Your task to perform on an android device: Play the new Drake video on YouTube Image 0: 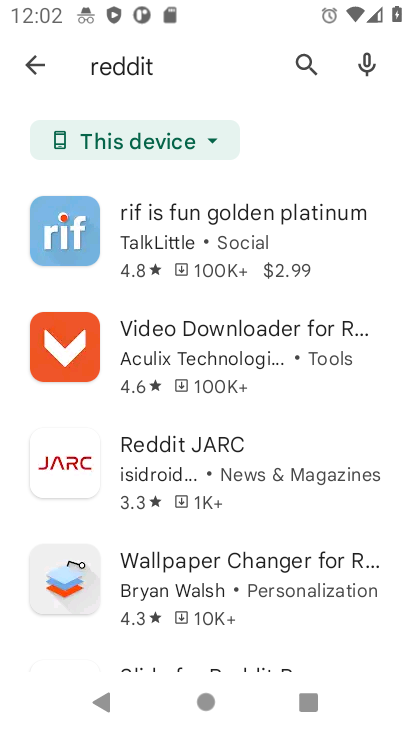
Step 0: press home button
Your task to perform on an android device: Play the new Drake video on YouTube Image 1: 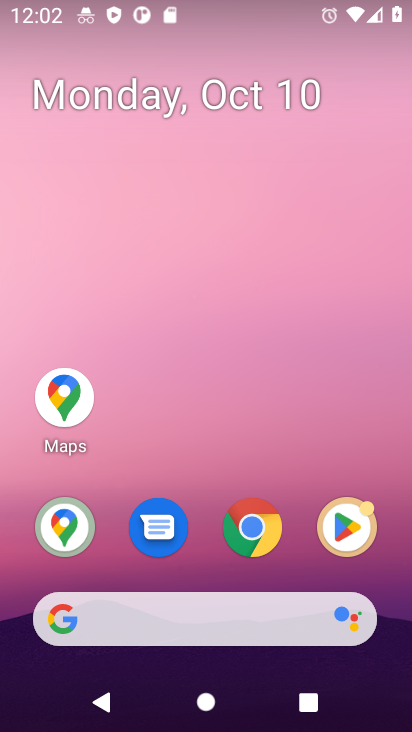
Step 1: drag from (218, 557) to (309, 58)
Your task to perform on an android device: Play the new Drake video on YouTube Image 2: 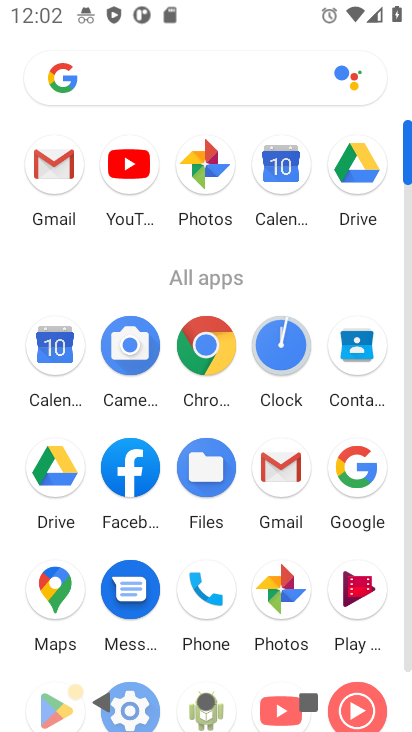
Step 2: click (121, 173)
Your task to perform on an android device: Play the new Drake video on YouTube Image 3: 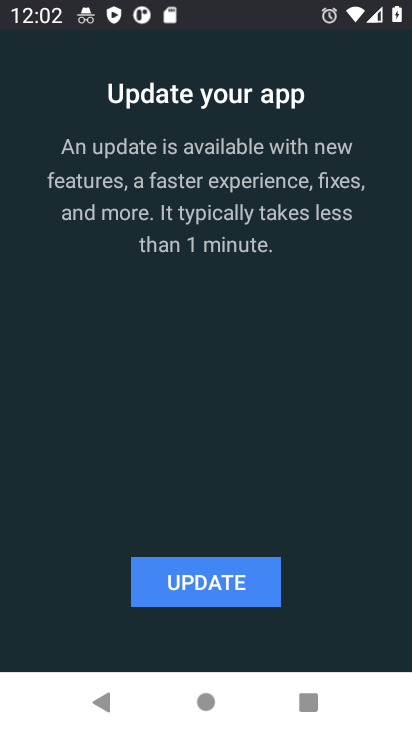
Step 3: click (216, 567)
Your task to perform on an android device: Play the new Drake video on YouTube Image 4: 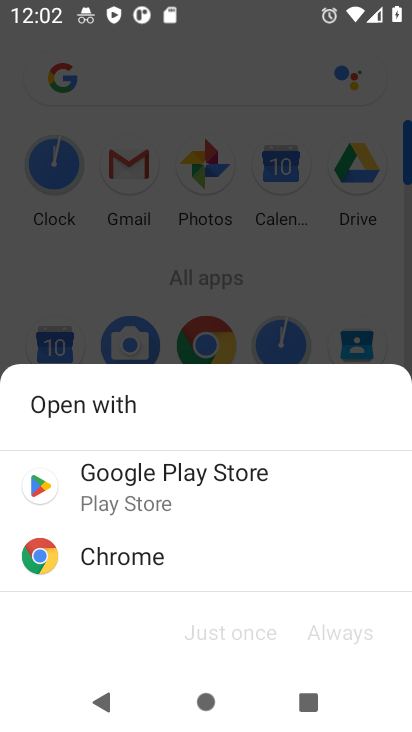
Step 4: click (167, 476)
Your task to perform on an android device: Play the new Drake video on YouTube Image 5: 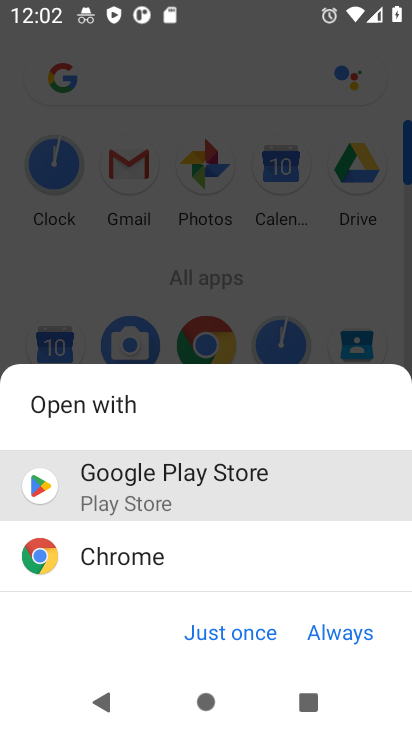
Step 5: click (264, 637)
Your task to perform on an android device: Play the new Drake video on YouTube Image 6: 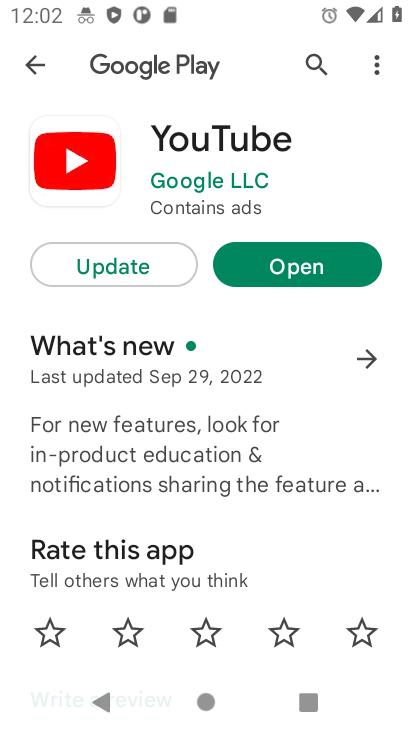
Step 6: click (149, 270)
Your task to perform on an android device: Play the new Drake video on YouTube Image 7: 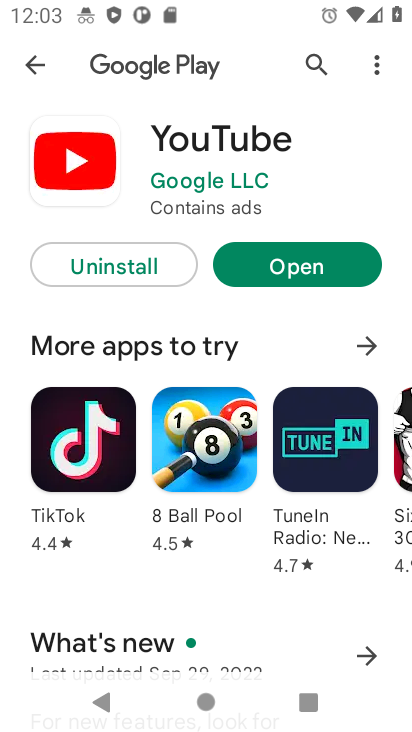
Step 7: click (273, 259)
Your task to perform on an android device: Play the new Drake video on YouTube Image 8: 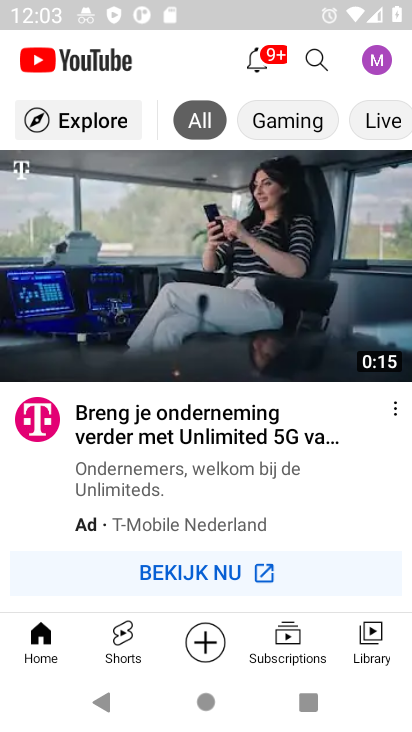
Step 8: click (307, 59)
Your task to perform on an android device: Play the new Drake video on YouTube Image 9: 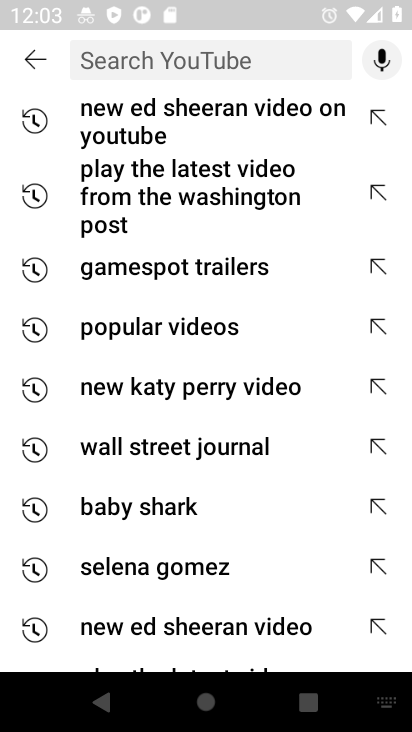
Step 9: type "new drake video"
Your task to perform on an android device: Play the new Drake video on YouTube Image 10: 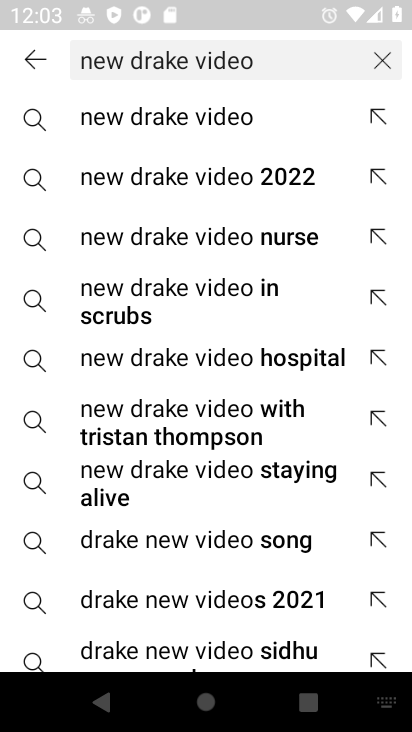
Step 10: click (233, 131)
Your task to perform on an android device: Play the new Drake video on YouTube Image 11: 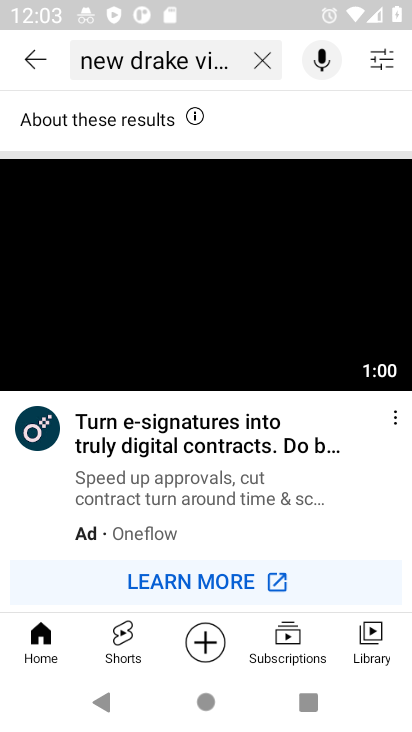
Step 11: drag from (293, 517) to (352, 269)
Your task to perform on an android device: Play the new Drake video on YouTube Image 12: 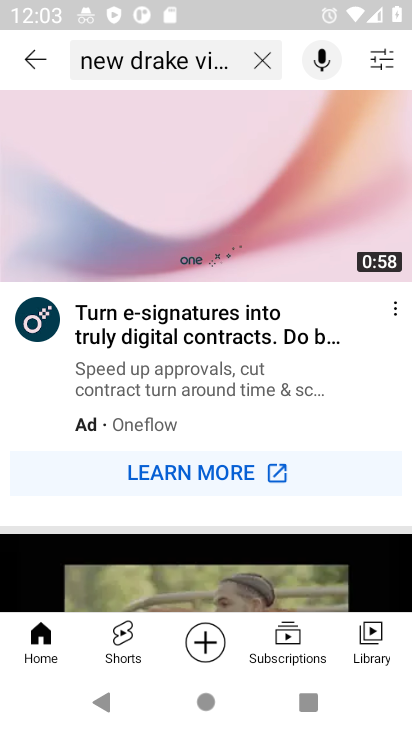
Step 12: drag from (201, 537) to (295, 134)
Your task to perform on an android device: Play the new Drake video on YouTube Image 13: 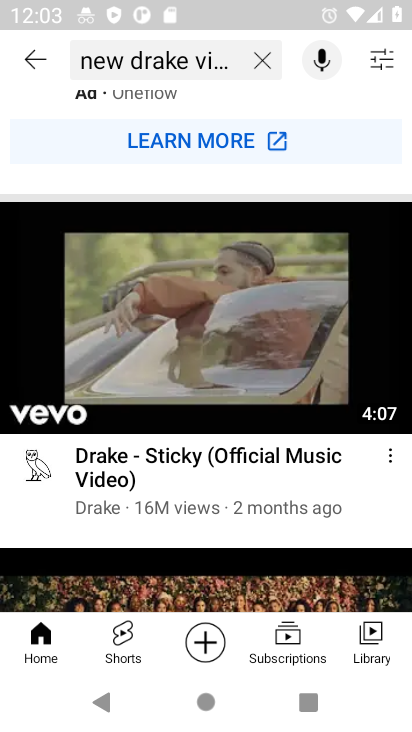
Step 13: click (244, 308)
Your task to perform on an android device: Play the new Drake video on YouTube Image 14: 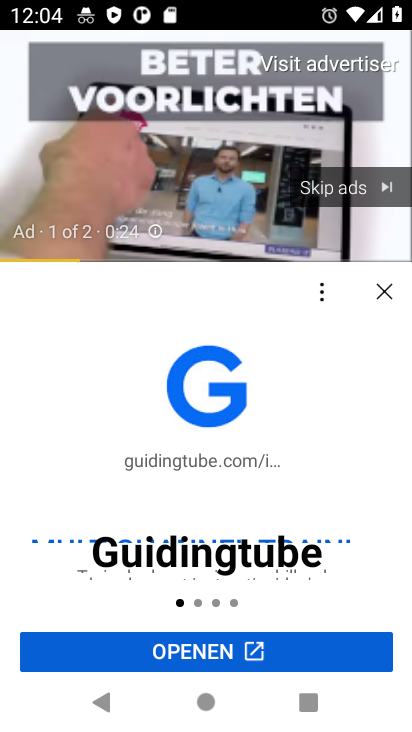
Step 14: click (383, 281)
Your task to perform on an android device: Play the new Drake video on YouTube Image 15: 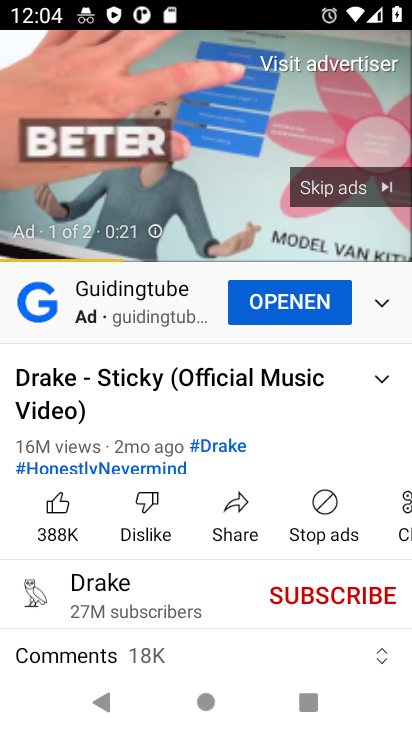
Step 15: click (381, 179)
Your task to perform on an android device: Play the new Drake video on YouTube Image 16: 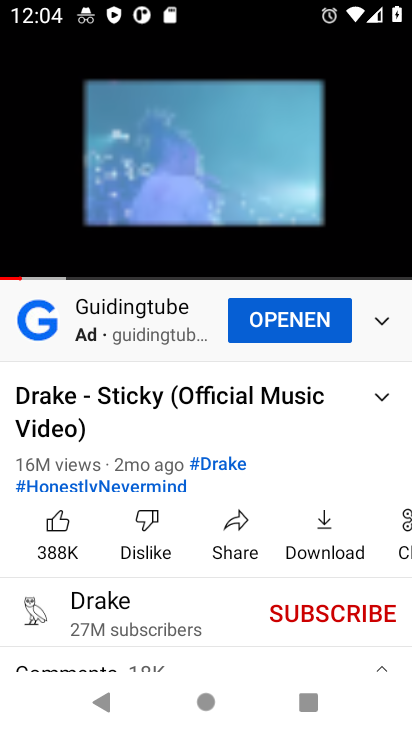
Step 16: task complete